Your task to perform on an android device: manage bookmarks in the chrome app Image 0: 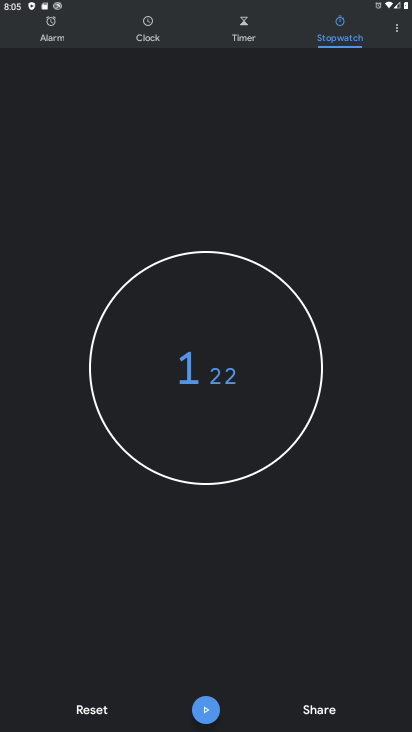
Step 0: press home button
Your task to perform on an android device: manage bookmarks in the chrome app Image 1: 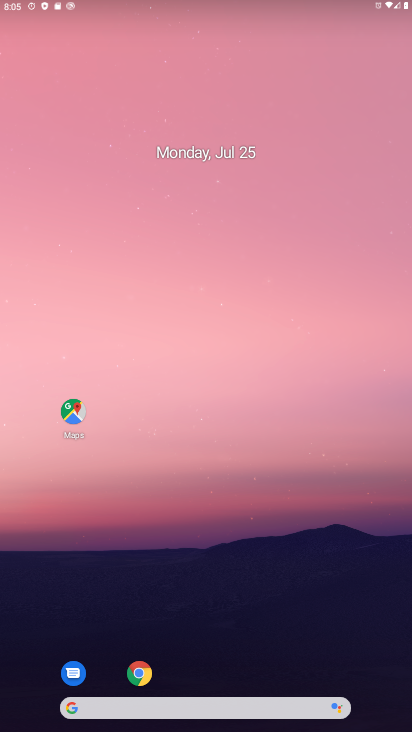
Step 1: drag from (315, 584) to (97, 53)
Your task to perform on an android device: manage bookmarks in the chrome app Image 2: 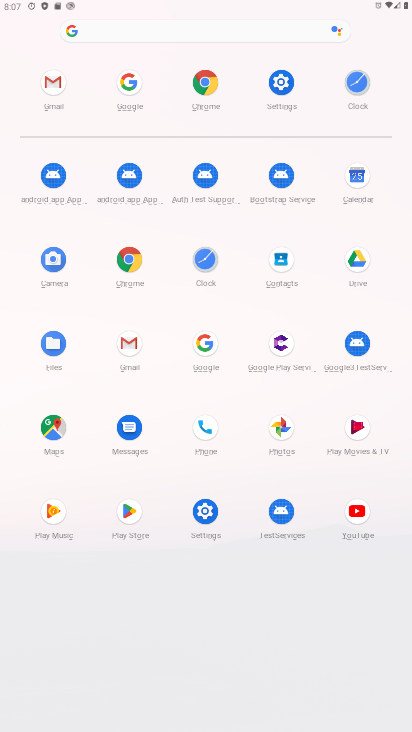
Step 2: click (122, 249)
Your task to perform on an android device: manage bookmarks in the chrome app Image 3: 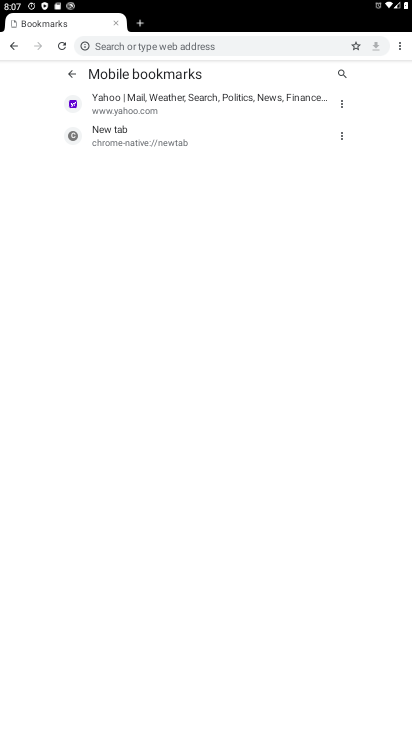
Step 3: task complete